Your task to perform on an android device: Clear the shopping cart on newegg.com. Search for usb-c on newegg.com, select the first entry, and add it to the cart. Image 0: 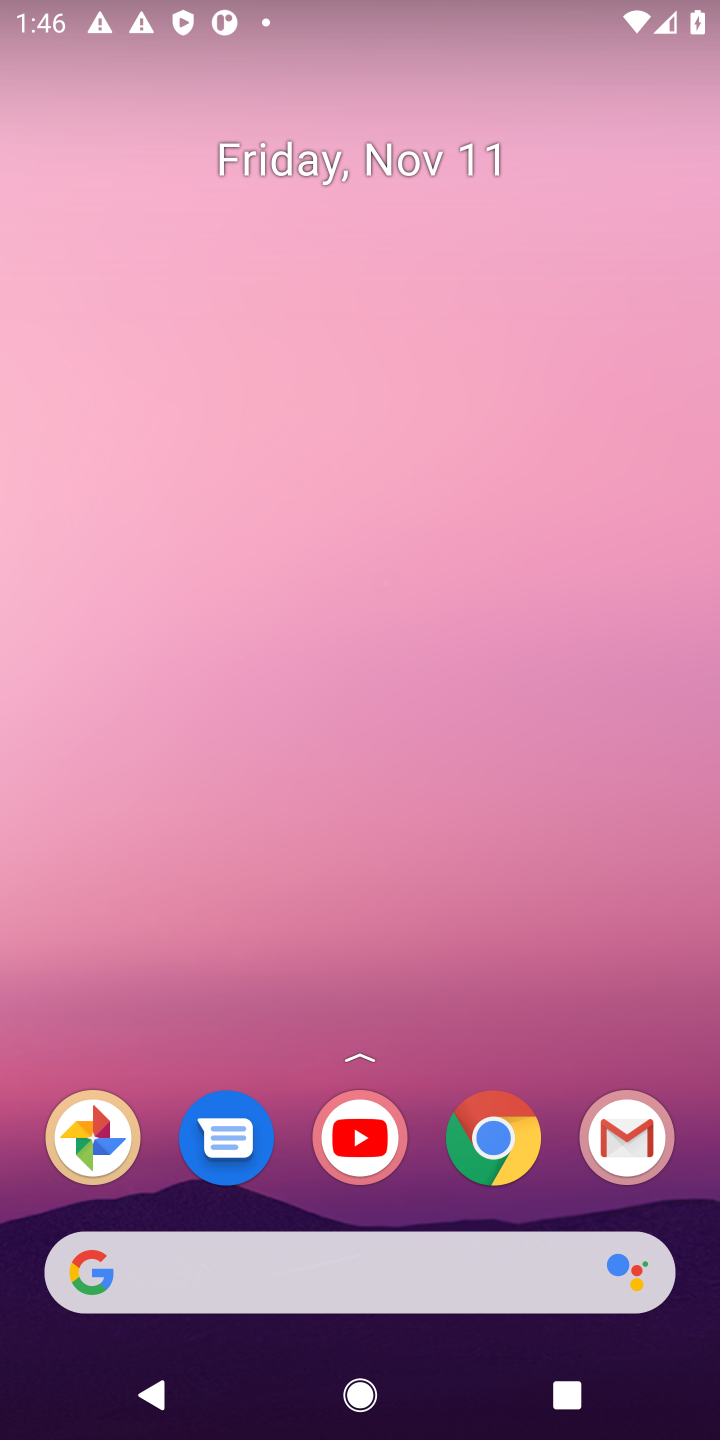
Step 0: click (476, 1166)
Your task to perform on an android device: Clear the shopping cart on newegg.com. Search for usb-c on newegg.com, select the first entry, and add it to the cart. Image 1: 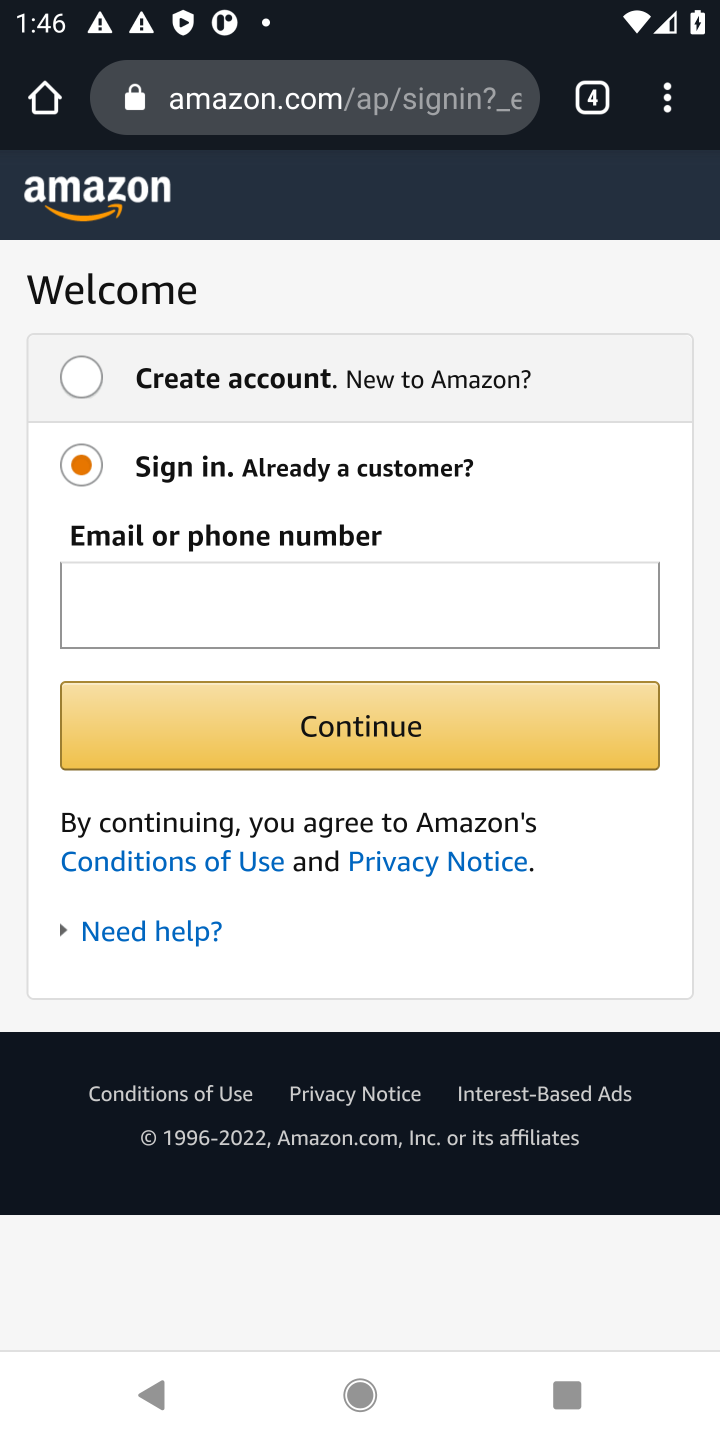
Step 1: click (596, 103)
Your task to perform on an android device: Clear the shopping cart on newegg.com. Search for usb-c on newegg.com, select the first entry, and add it to the cart. Image 2: 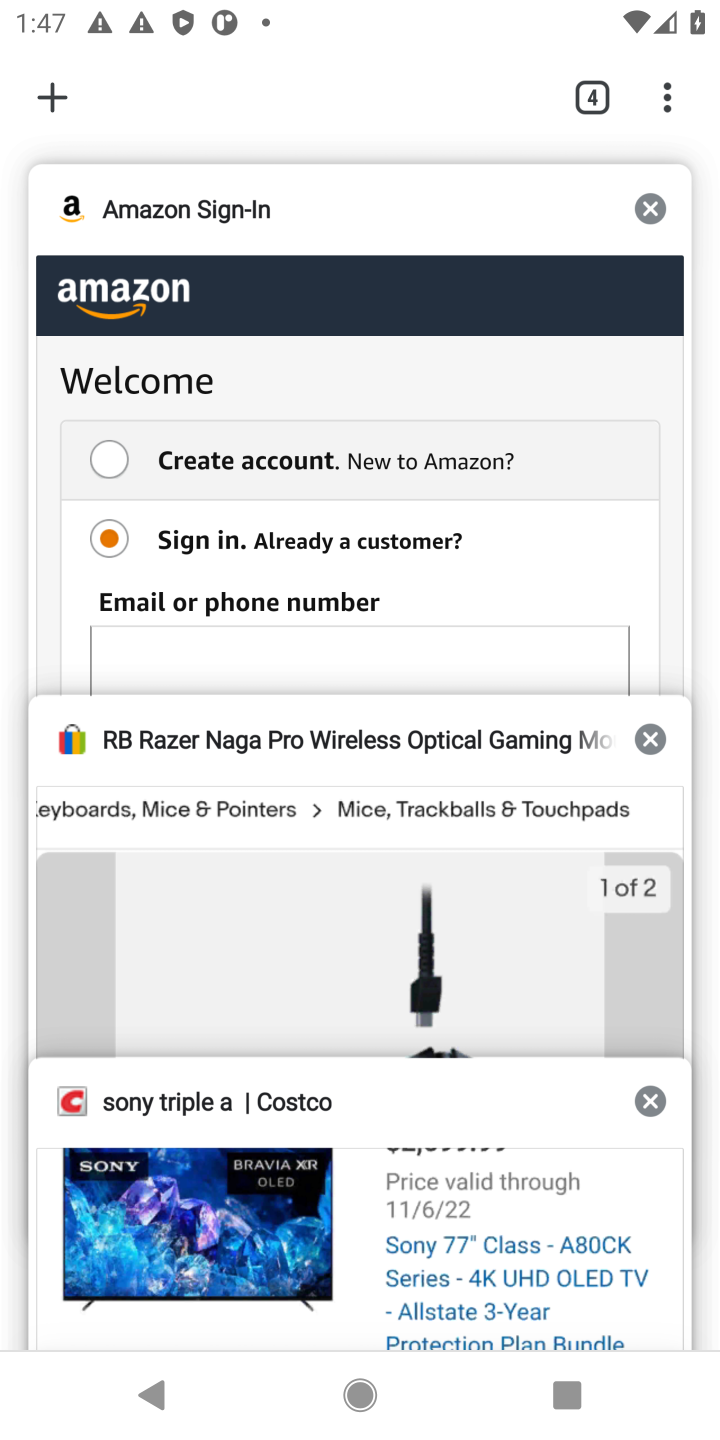
Step 2: click (47, 81)
Your task to perform on an android device: Clear the shopping cart on newegg.com. Search for usb-c on newegg.com, select the first entry, and add it to the cart. Image 3: 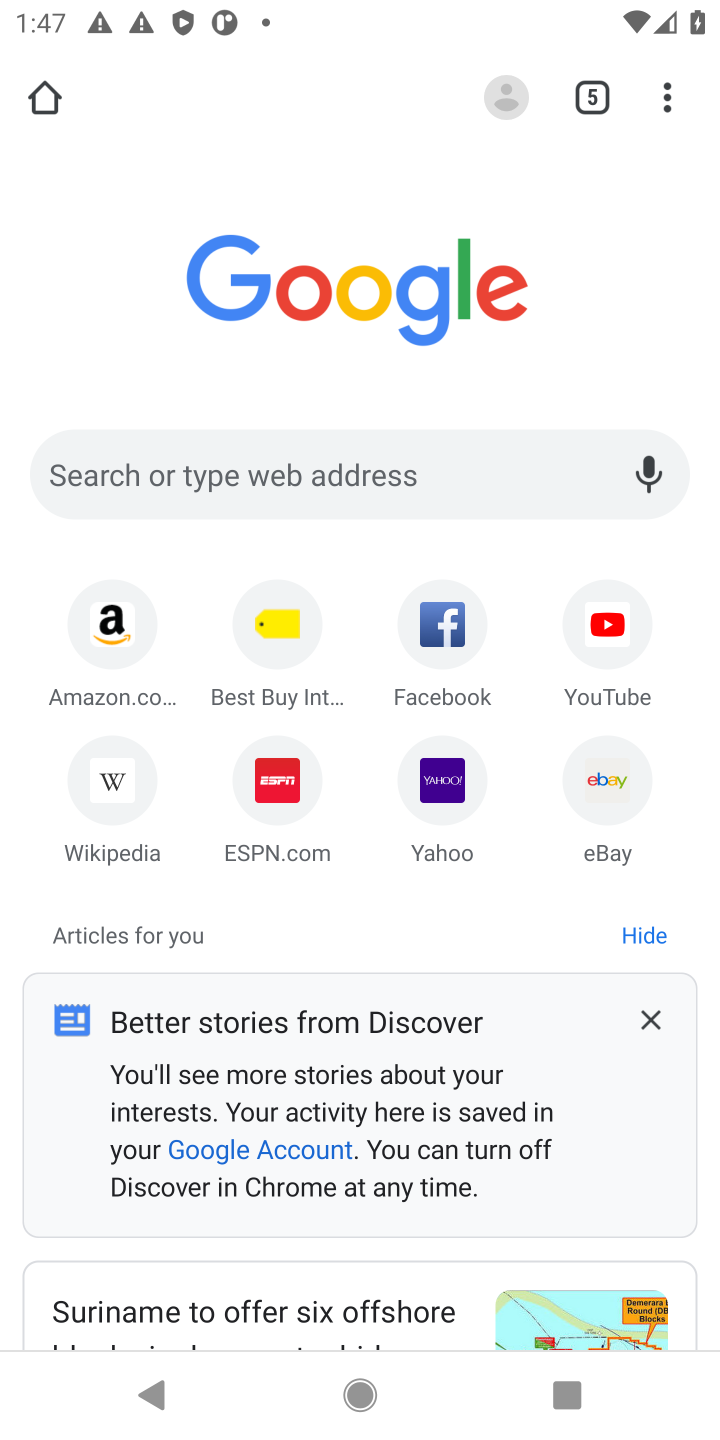
Step 3: click (358, 448)
Your task to perform on an android device: Clear the shopping cart on newegg.com. Search for usb-c on newegg.com, select the first entry, and add it to the cart. Image 4: 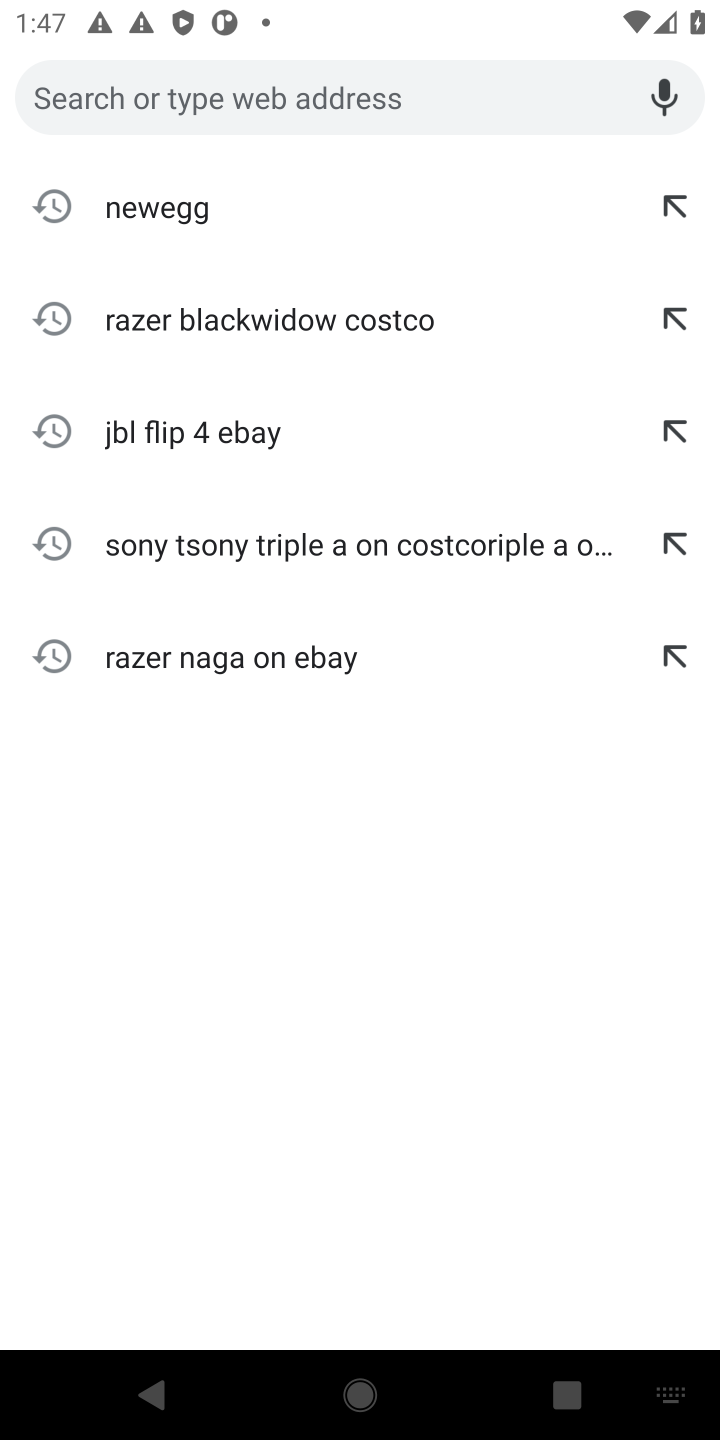
Step 4: type "usb-c on newegg"
Your task to perform on an android device: Clear the shopping cart on newegg.com. Search for usb-c on newegg.com, select the first entry, and add it to the cart. Image 5: 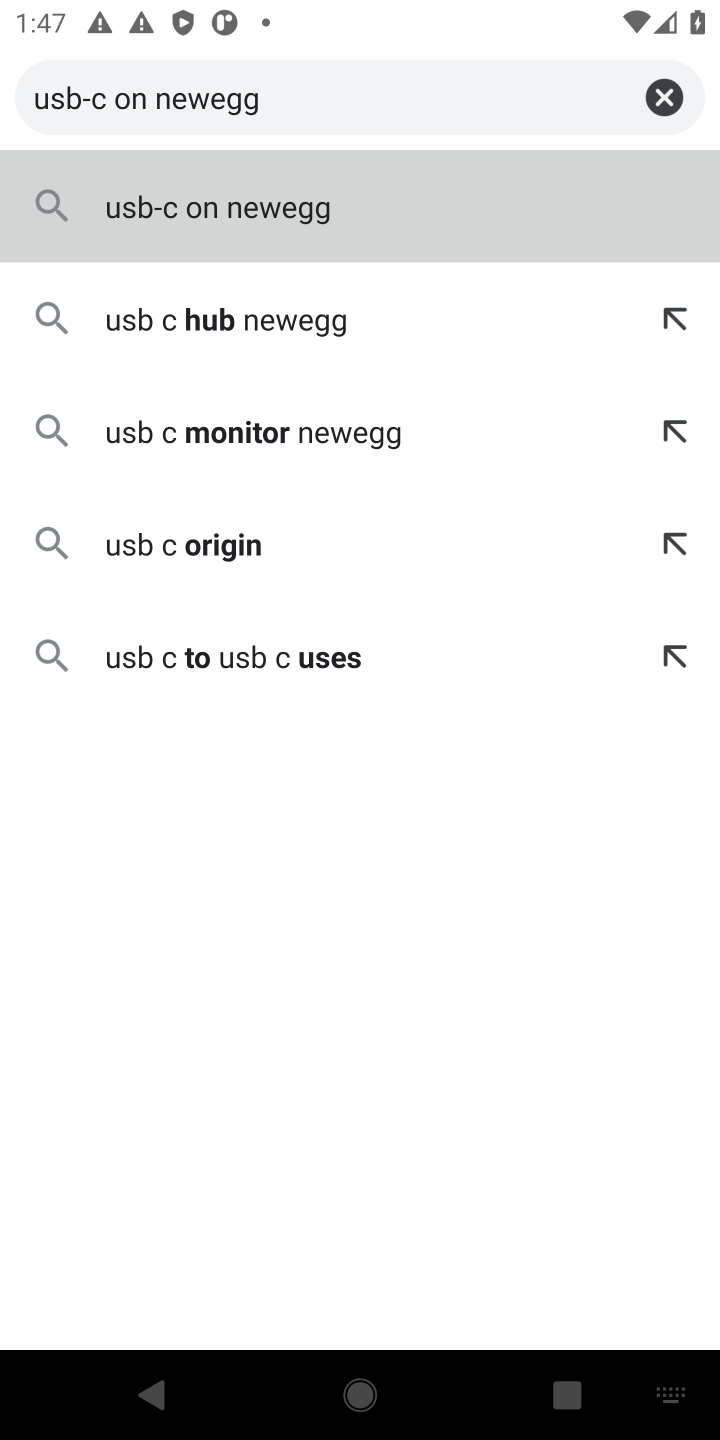
Step 5: click (247, 215)
Your task to perform on an android device: Clear the shopping cart on newegg.com. Search for usb-c on newegg.com, select the first entry, and add it to the cart. Image 6: 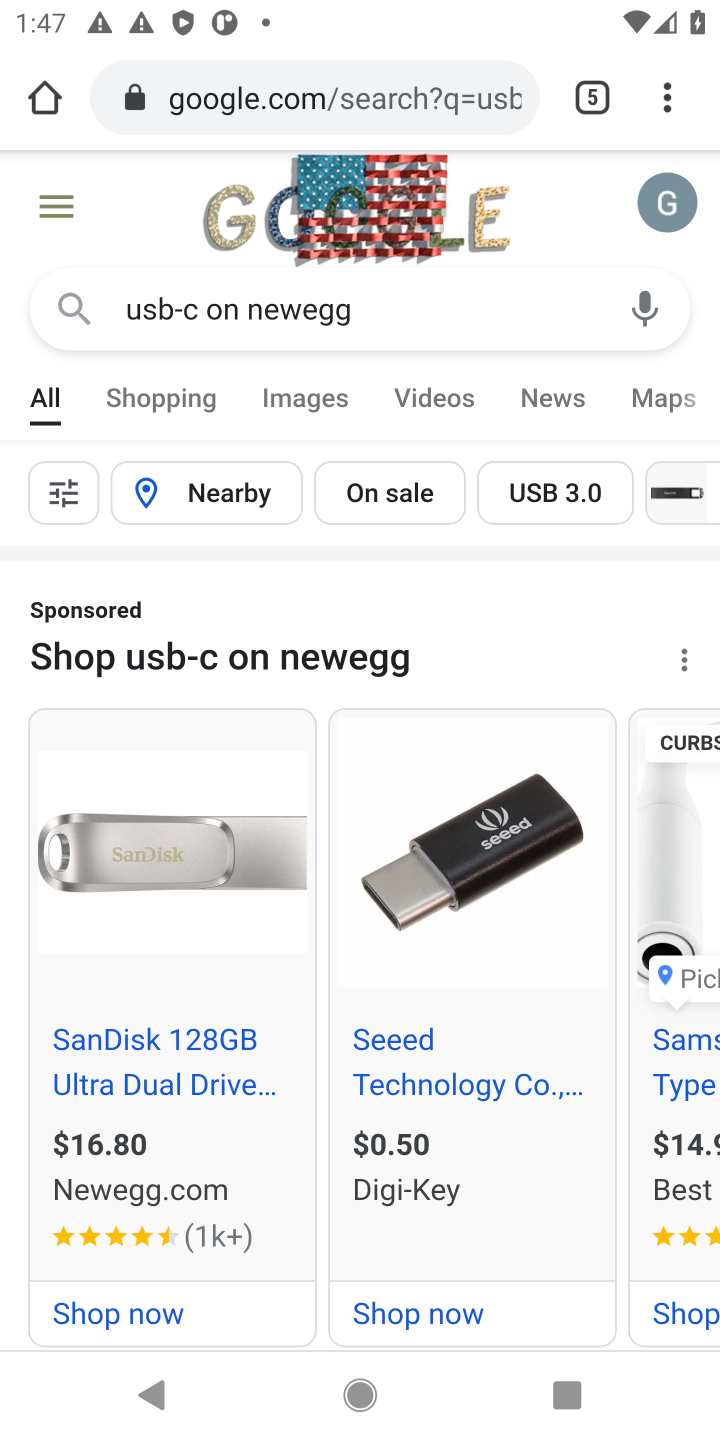
Step 6: drag from (233, 1136) to (222, 794)
Your task to perform on an android device: Clear the shopping cart on newegg.com. Search for usb-c on newegg.com, select the first entry, and add it to the cart. Image 7: 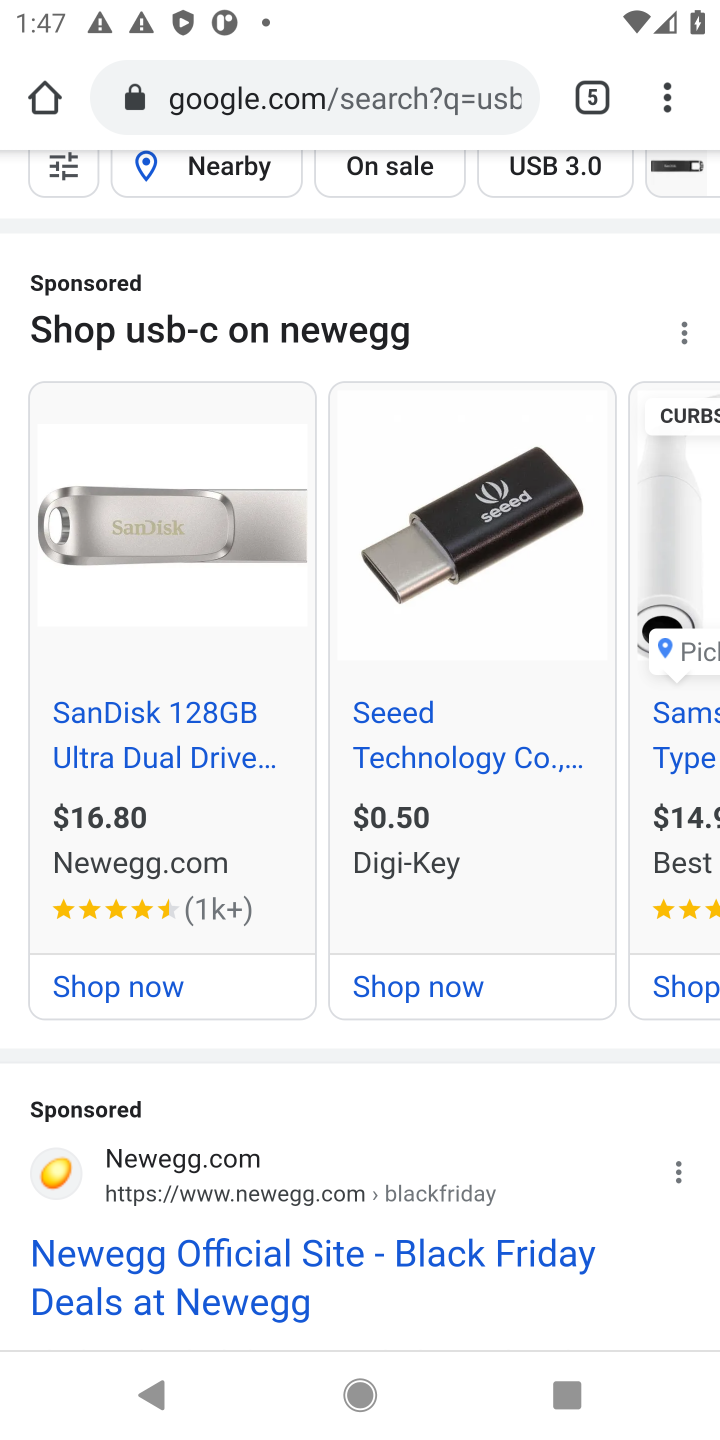
Step 7: drag from (225, 1106) to (220, 237)
Your task to perform on an android device: Clear the shopping cart on newegg.com. Search for usb-c on newegg.com, select the first entry, and add it to the cart. Image 8: 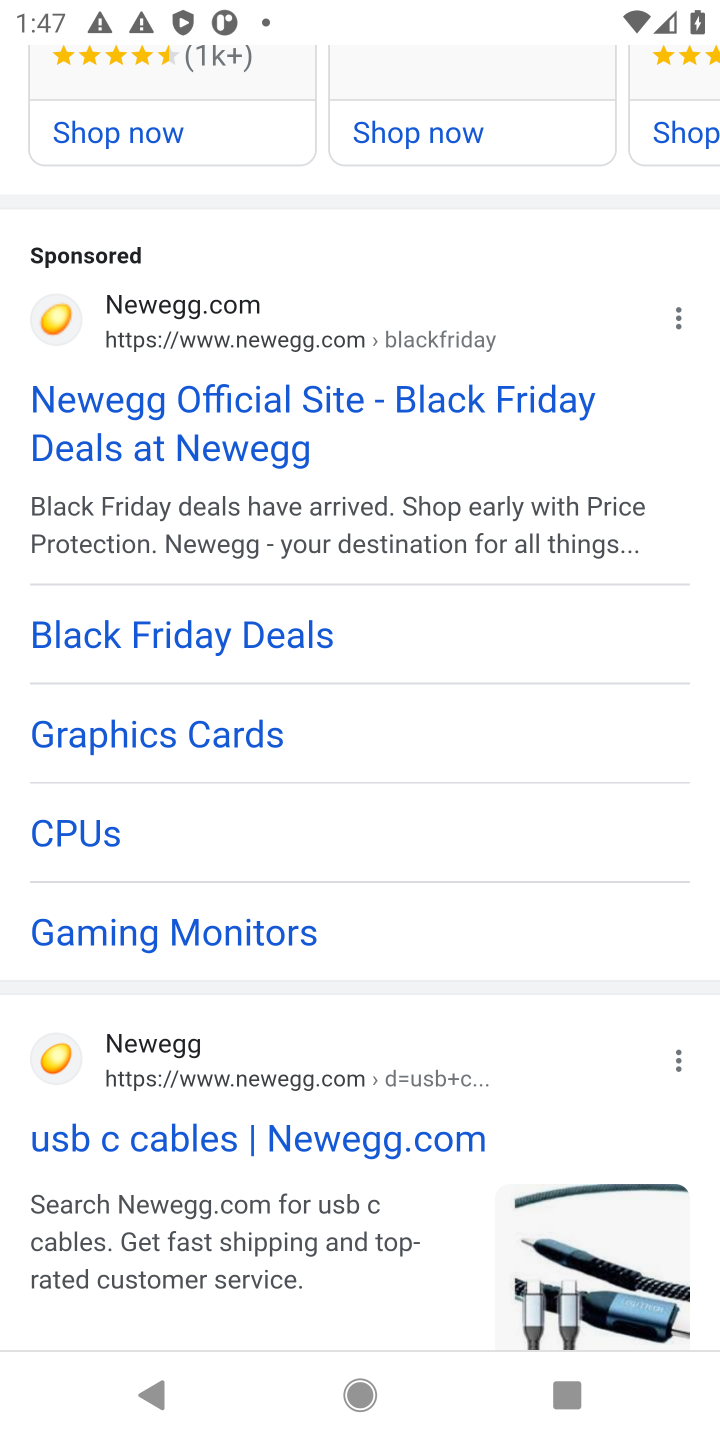
Step 8: click (164, 1133)
Your task to perform on an android device: Clear the shopping cart on newegg.com. Search for usb-c on newegg.com, select the first entry, and add it to the cart. Image 9: 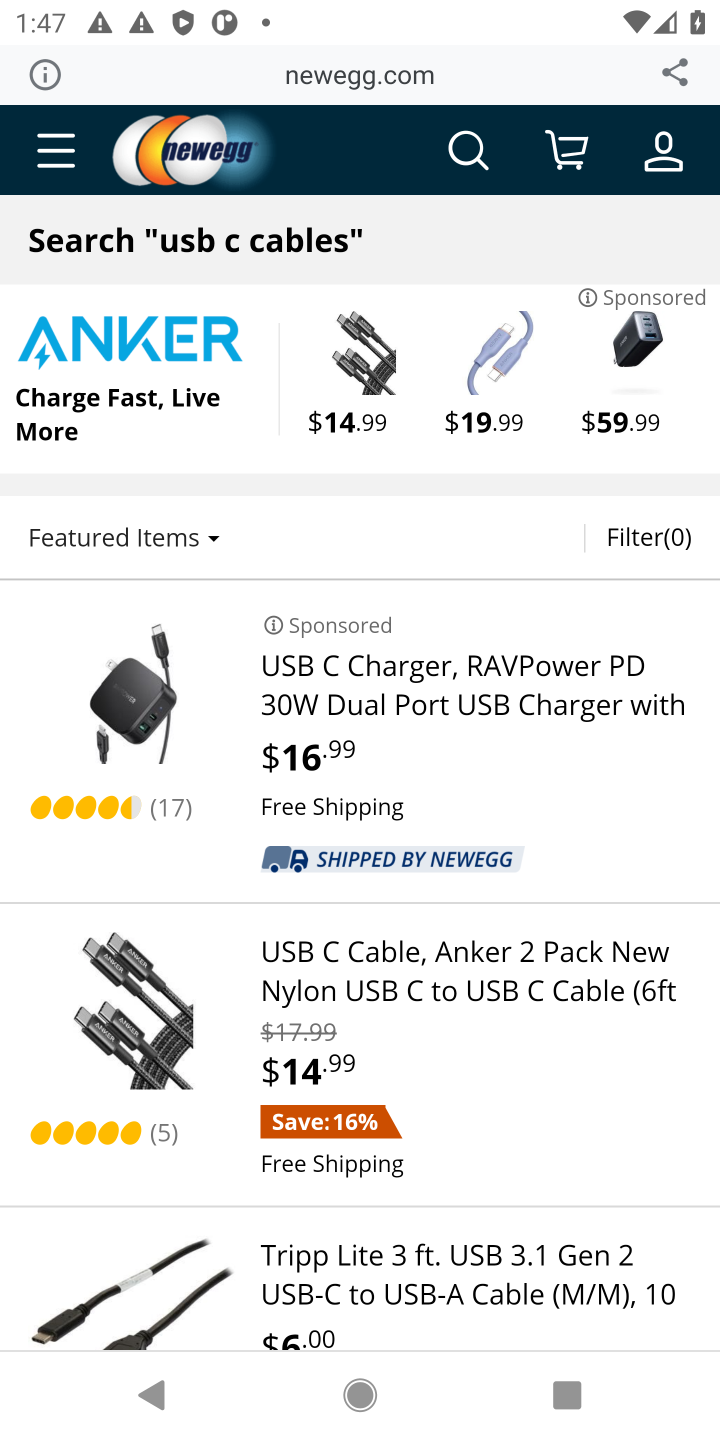
Step 9: click (445, 660)
Your task to perform on an android device: Clear the shopping cart on newegg.com. Search for usb-c on newegg.com, select the first entry, and add it to the cart. Image 10: 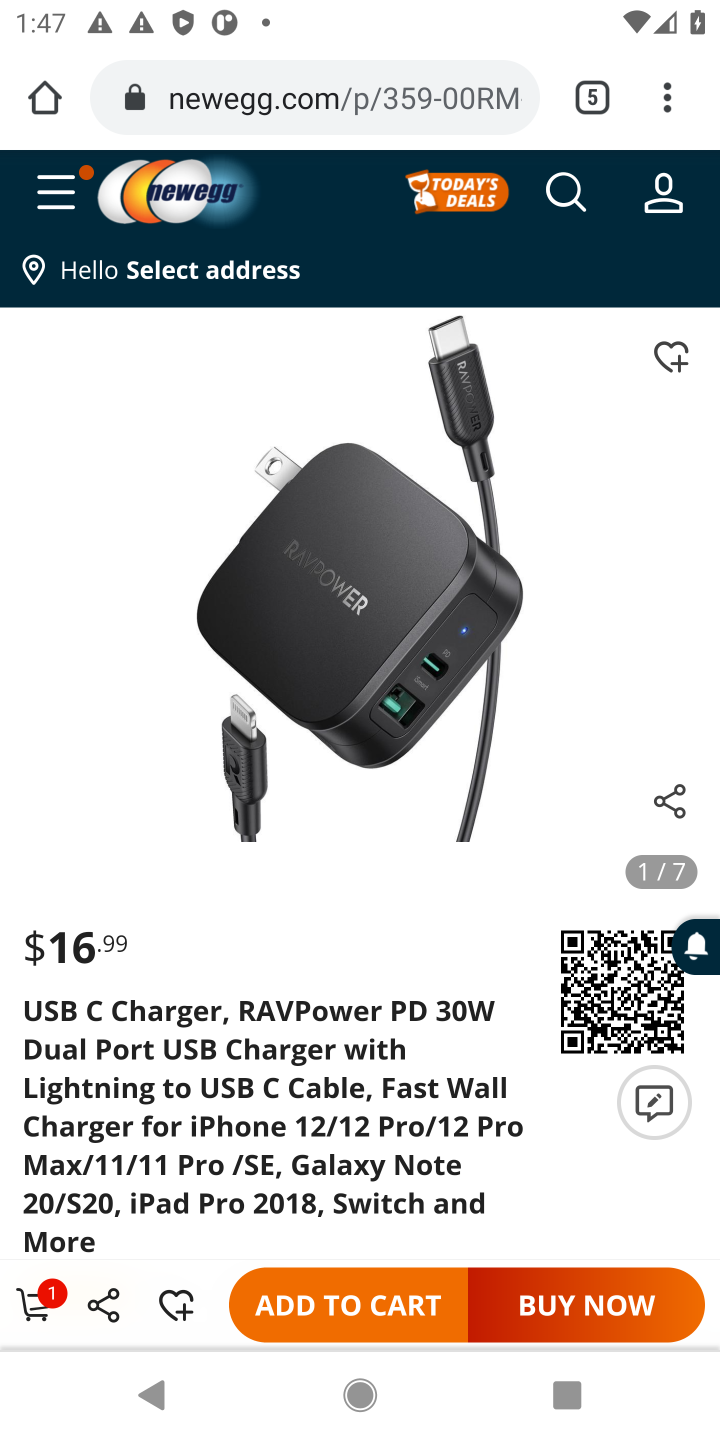
Step 10: click (339, 1302)
Your task to perform on an android device: Clear the shopping cart on newegg.com. Search for usb-c on newegg.com, select the first entry, and add it to the cart. Image 11: 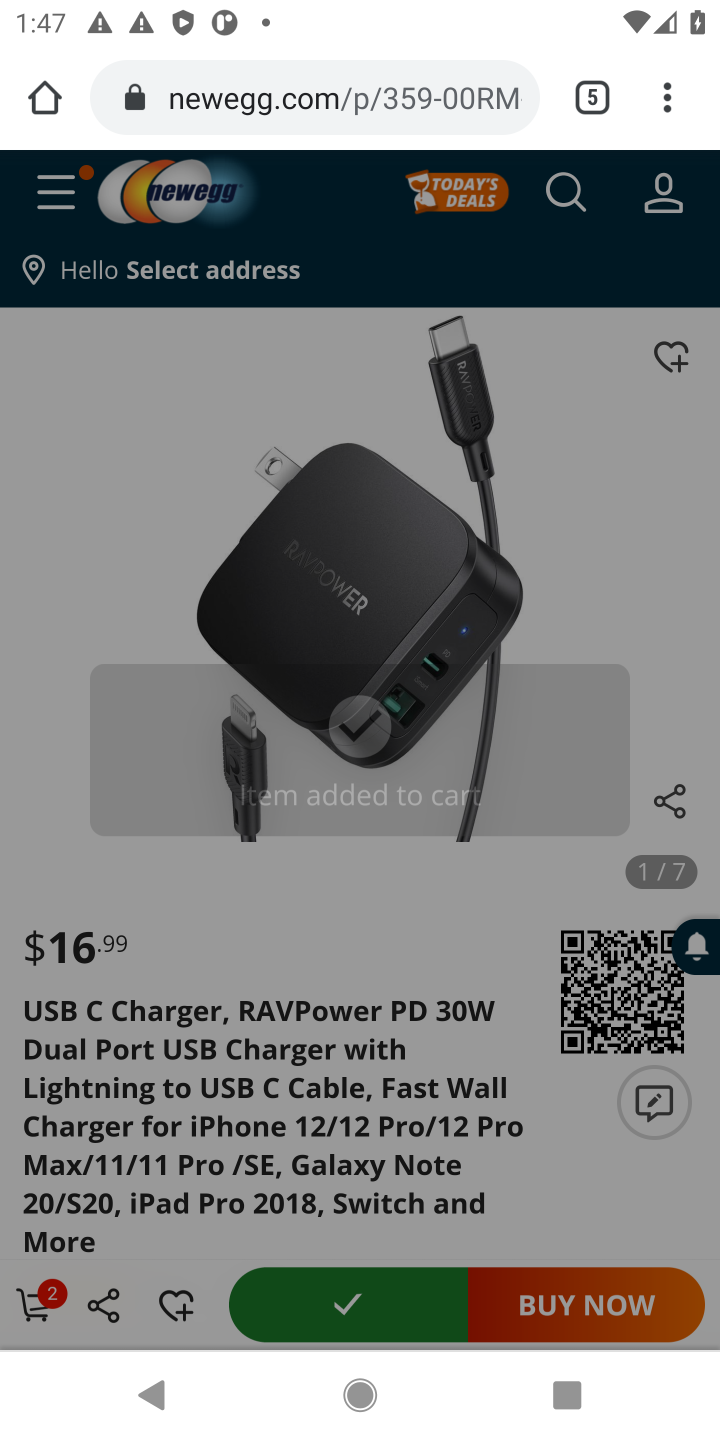
Step 11: task complete